Your task to perform on an android device: uninstall "Instagram" Image 0: 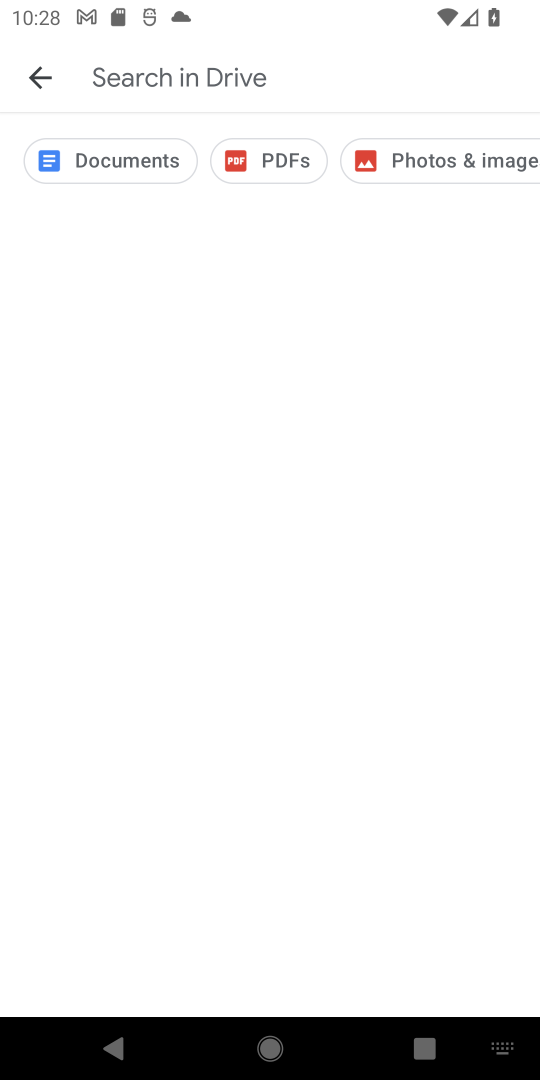
Step 0: press home button
Your task to perform on an android device: uninstall "Instagram" Image 1: 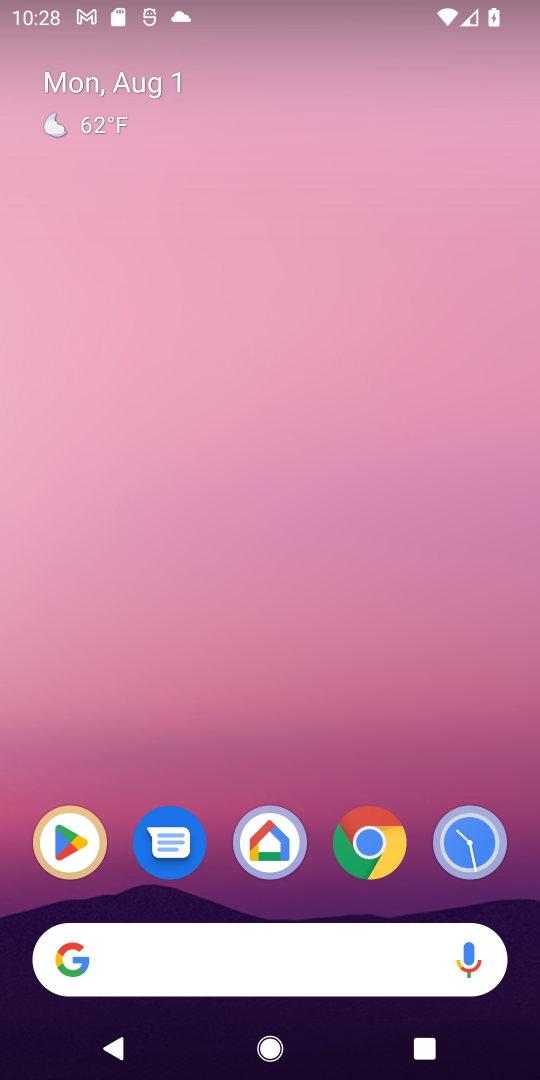
Step 1: click (80, 838)
Your task to perform on an android device: uninstall "Instagram" Image 2: 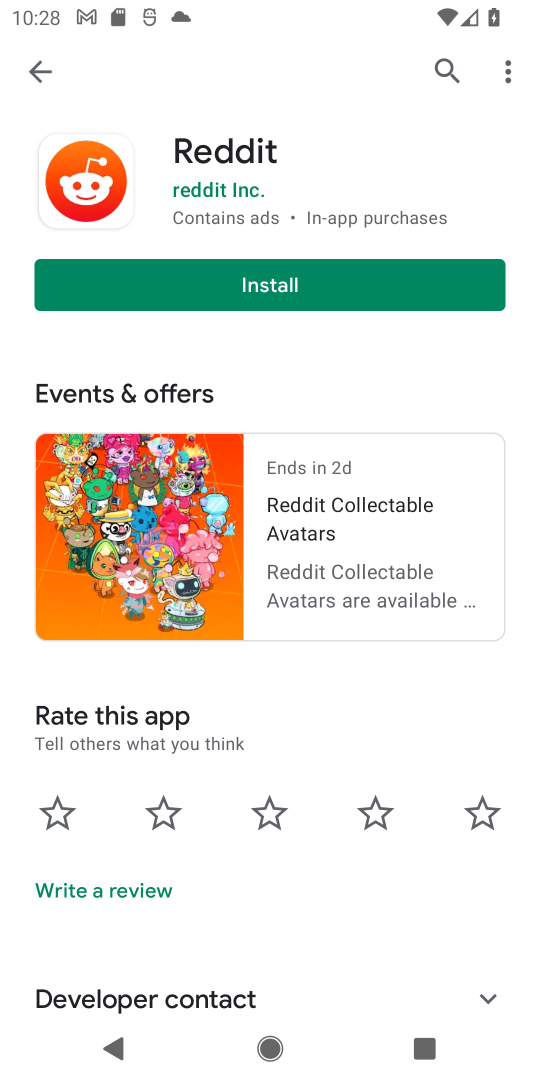
Step 2: click (432, 68)
Your task to perform on an android device: uninstall "Instagram" Image 3: 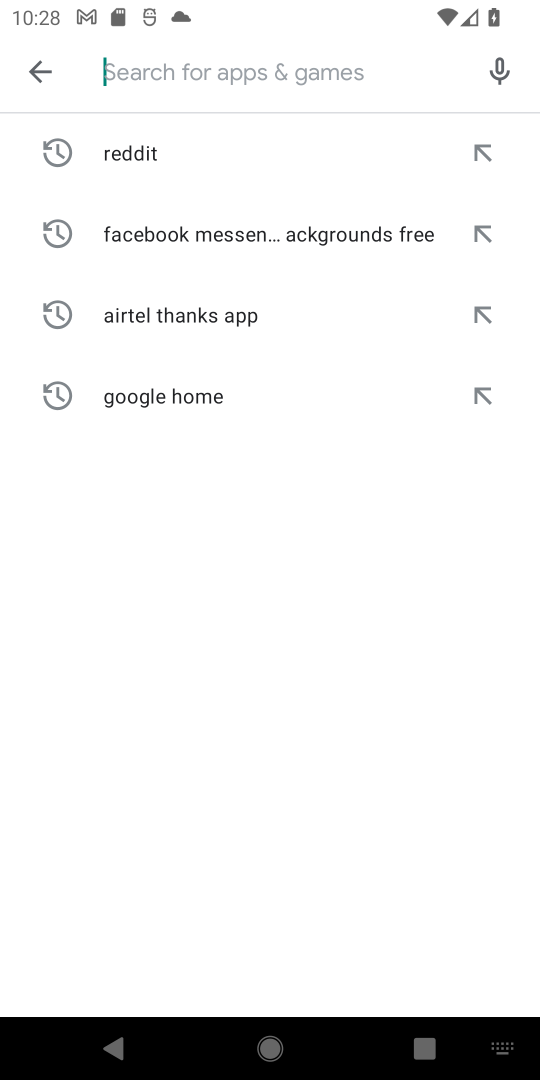
Step 3: click (150, 72)
Your task to perform on an android device: uninstall "Instagram" Image 4: 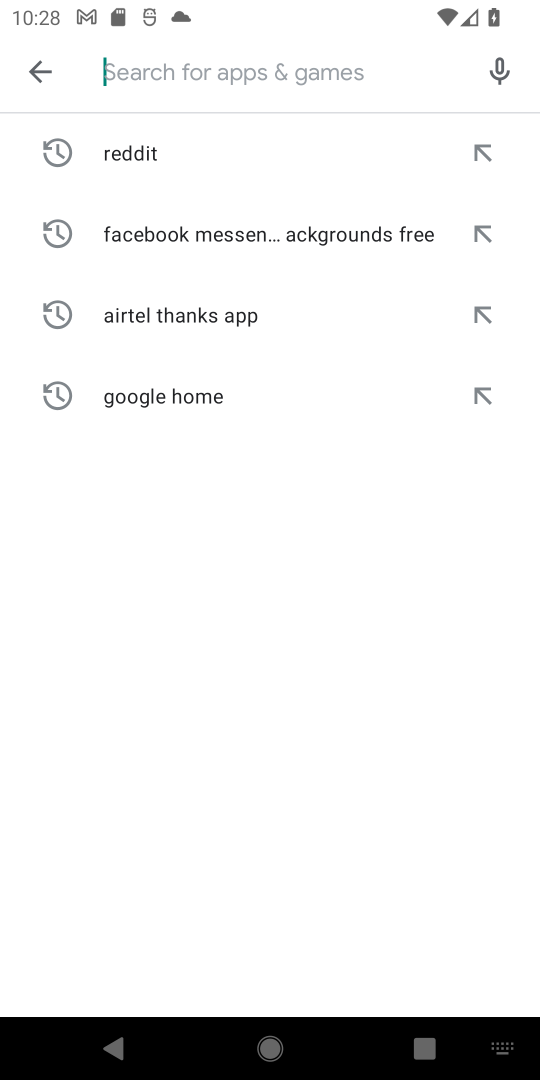
Step 4: type "Instagram"
Your task to perform on an android device: uninstall "Instagram" Image 5: 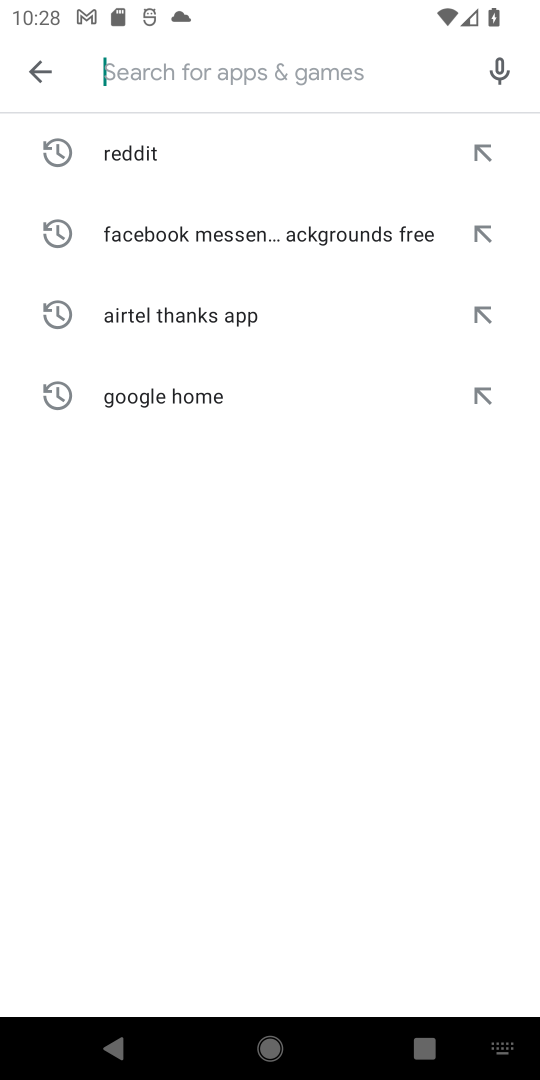
Step 5: click (276, 544)
Your task to perform on an android device: uninstall "Instagram" Image 6: 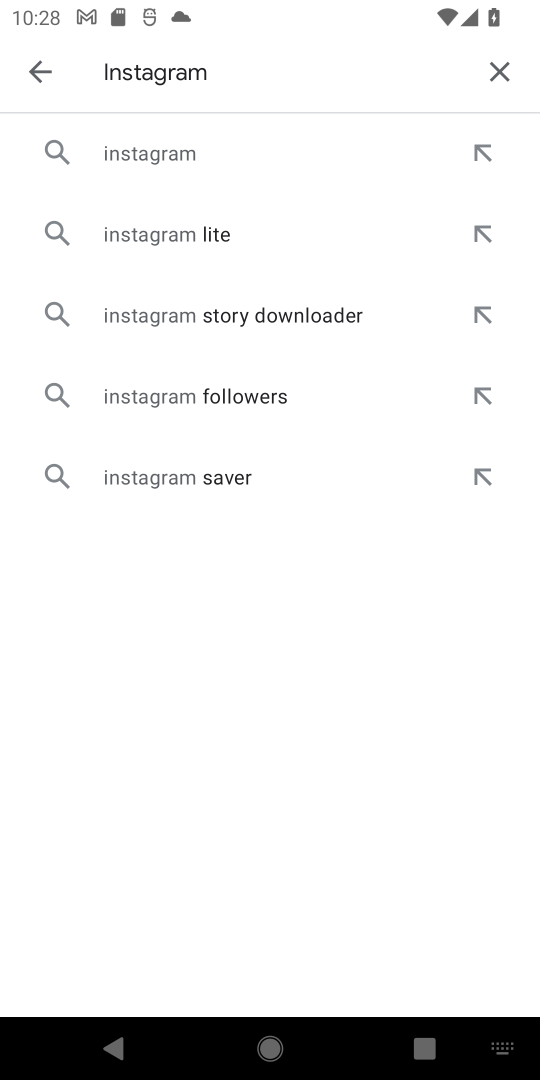
Step 6: click (201, 156)
Your task to perform on an android device: uninstall "Instagram" Image 7: 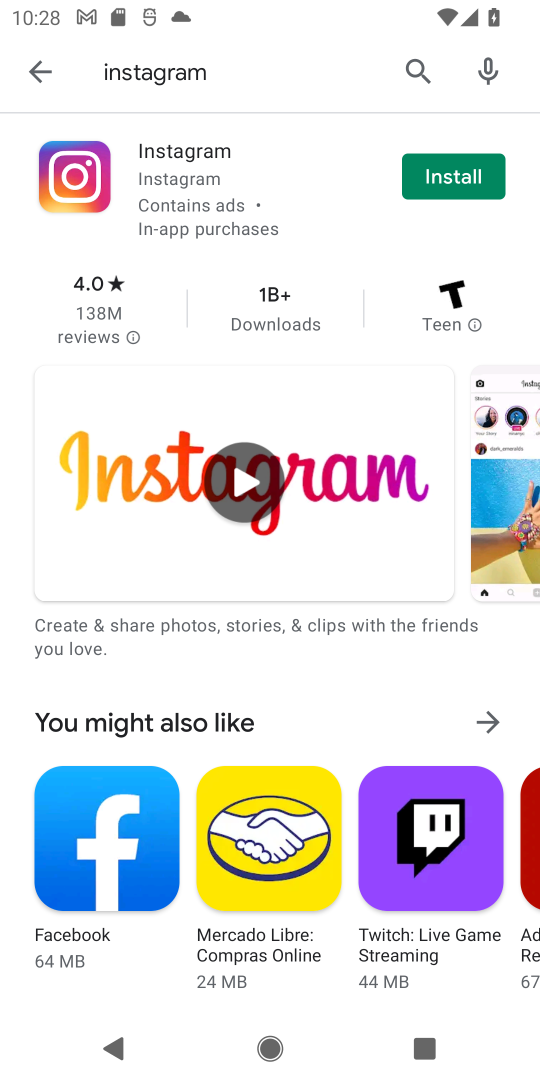
Step 7: task complete